Your task to perform on an android device: open app "YouTube Kids" Image 0: 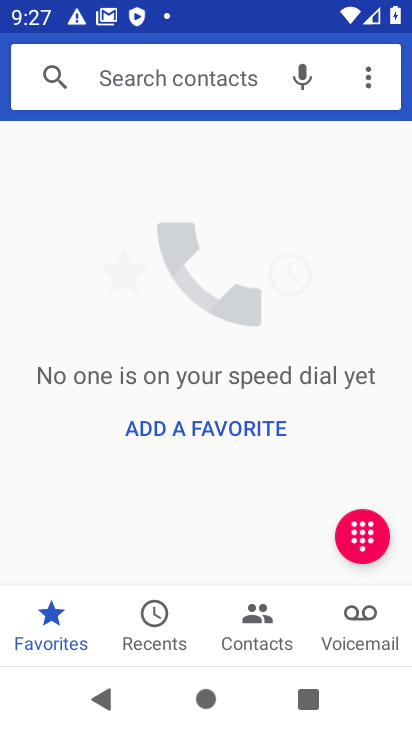
Step 0: press home button
Your task to perform on an android device: open app "YouTube Kids" Image 1: 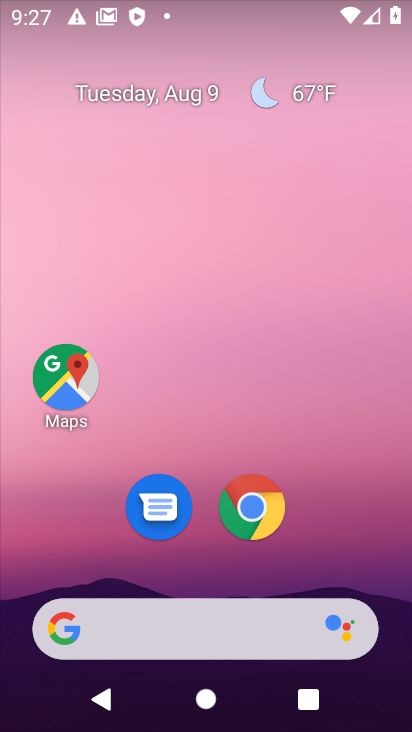
Step 1: drag from (239, 624) to (239, 107)
Your task to perform on an android device: open app "YouTube Kids" Image 2: 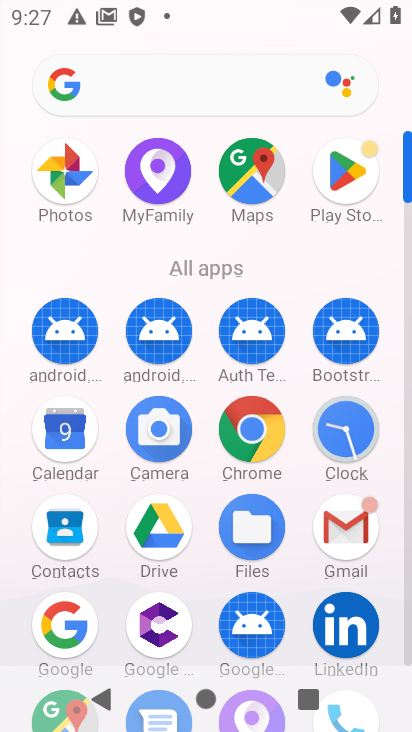
Step 2: click (343, 179)
Your task to perform on an android device: open app "YouTube Kids" Image 3: 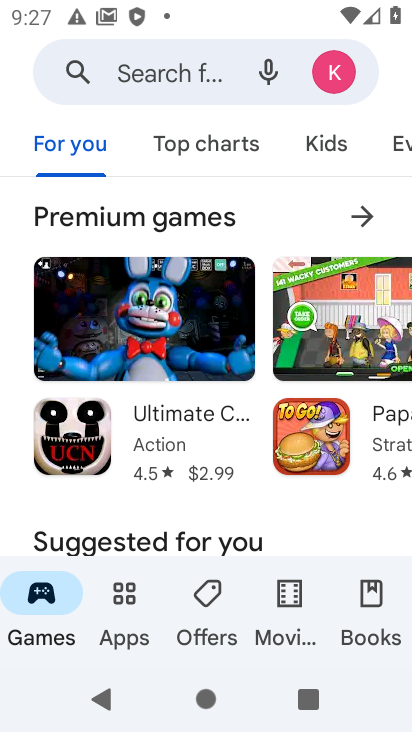
Step 3: click (176, 61)
Your task to perform on an android device: open app "YouTube Kids" Image 4: 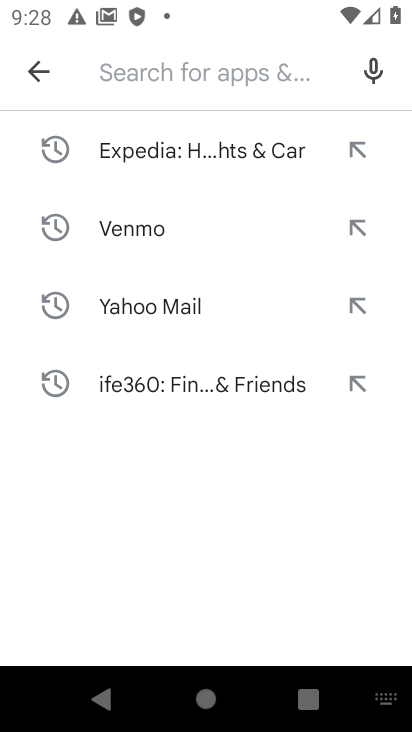
Step 4: type "YouTube Kids"
Your task to perform on an android device: open app "YouTube Kids" Image 5: 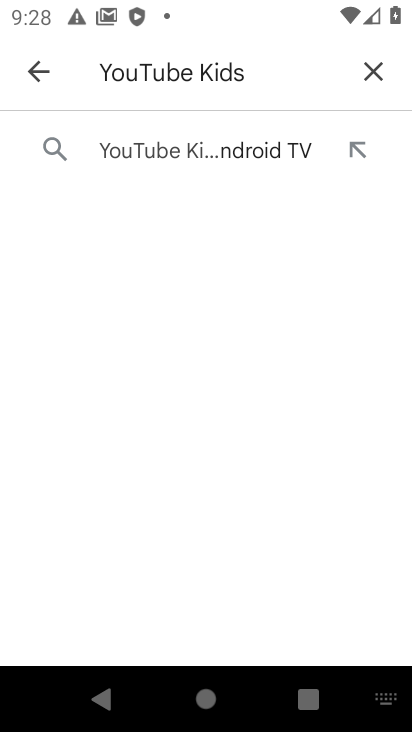
Step 5: click (268, 146)
Your task to perform on an android device: open app "YouTube Kids" Image 6: 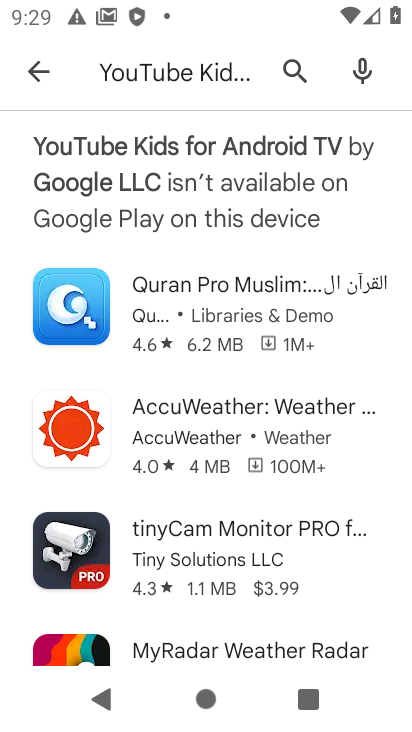
Step 6: task complete